Your task to perform on an android device: See recent photos Image 0: 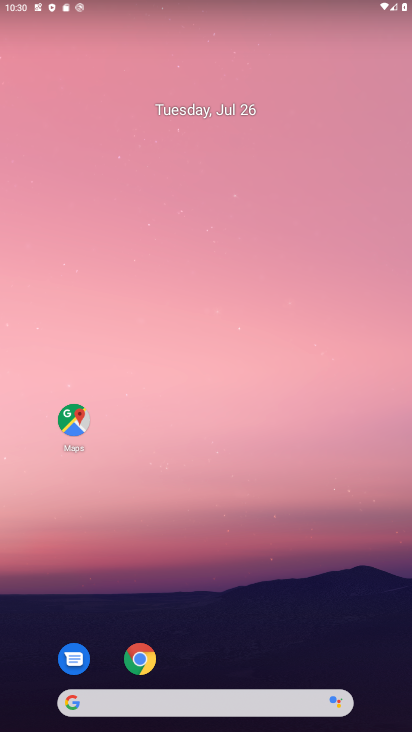
Step 0: drag from (288, 642) to (279, 8)
Your task to perform on an android device: See recent photos Image 1: 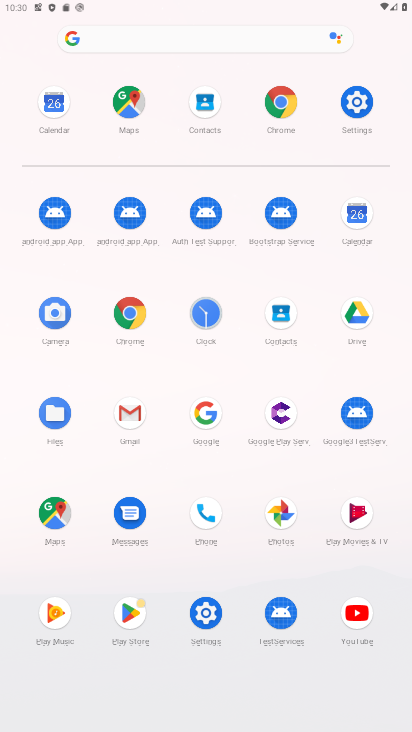
Step 1: click (291, 522)
Your task to perform on an android device: See recent photos Image 2: 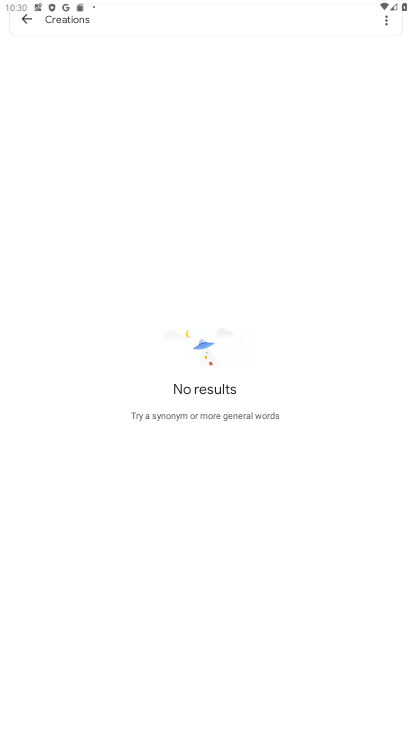
Step 2: click (193, 395)
Your task to perform on an android device: See recent photos Image 3: 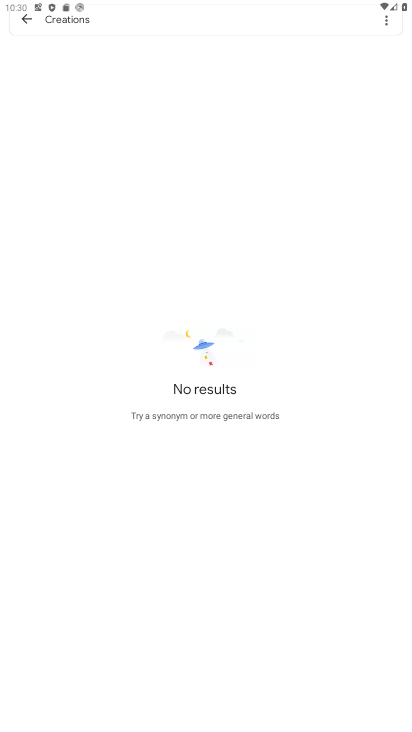
Step 3: task complete